Your task to perform on an android device: allow cookies in the chrome app Image 0: 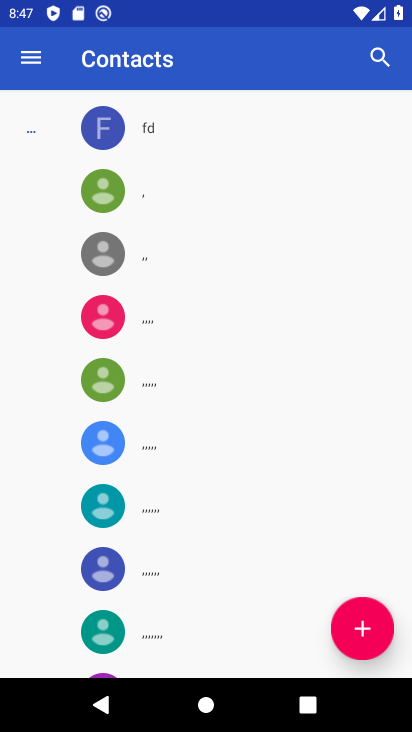
Step 0: press home button
Your task to perform on an android device: allow cookies in the chrome app Image 1: 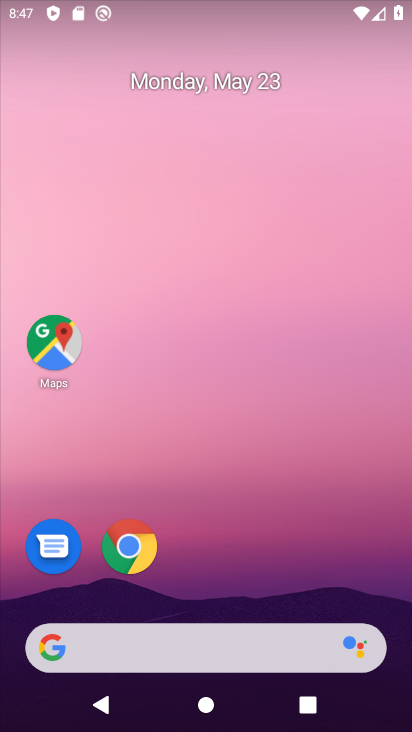
Step 1: click (126, 540)
Your task to perform on an android device: allow cookies in the chrome app Image 2: 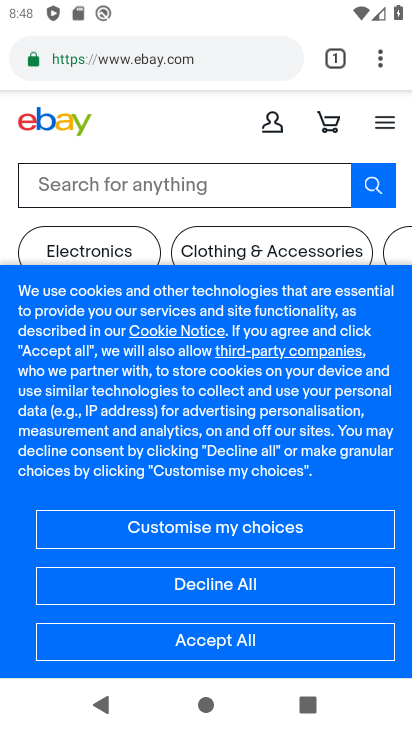
Step 2: drag from (384, 47) to (225, 568)
Your task to perform on an android device: allow cookies in the chrome app Image 3: 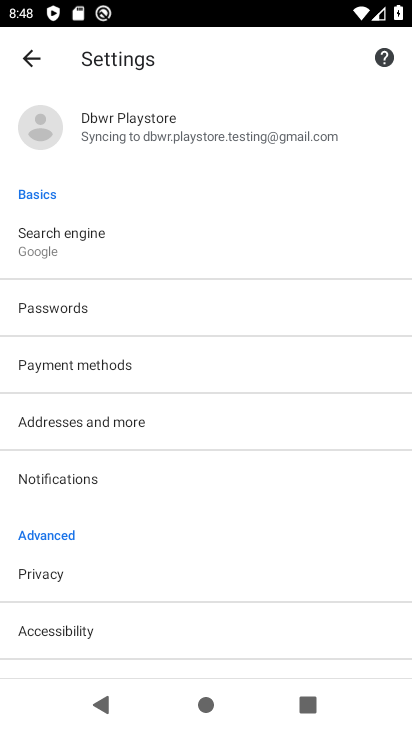
Step 3: drag from (179, 577) to (157, 268)
Your task to perform on an android device: allow cookies in the chrome app Image 4: 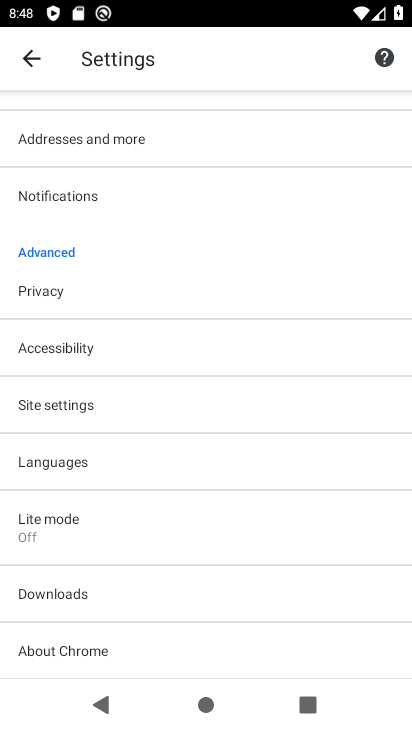
Step 4: click (65, 410)
Your task to perform on an android device: allow cookies in the chrome app Image 5: 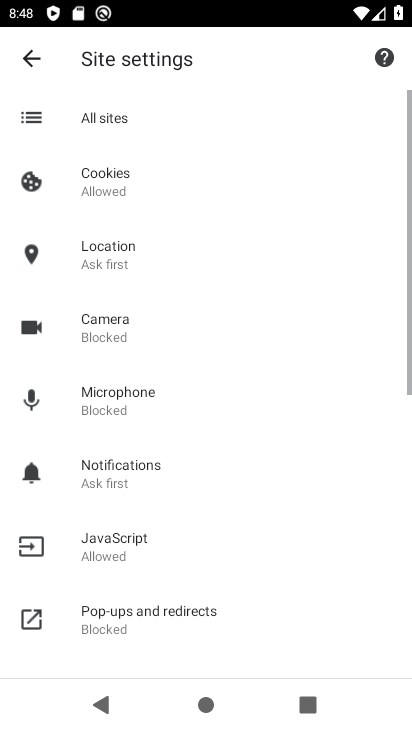
Step 5: click (114, 195)
Your task to perform on an android device: allow cookies in the chrome app Image 6: 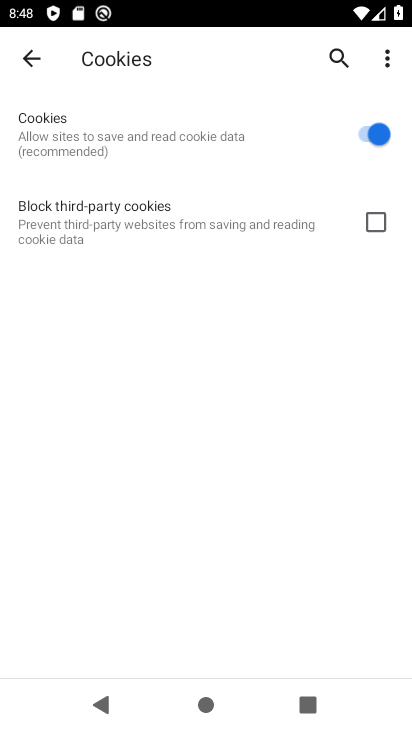
Step 6: task complete